Your task to perform on an android device: turn on translation in the chrome app Image 0: 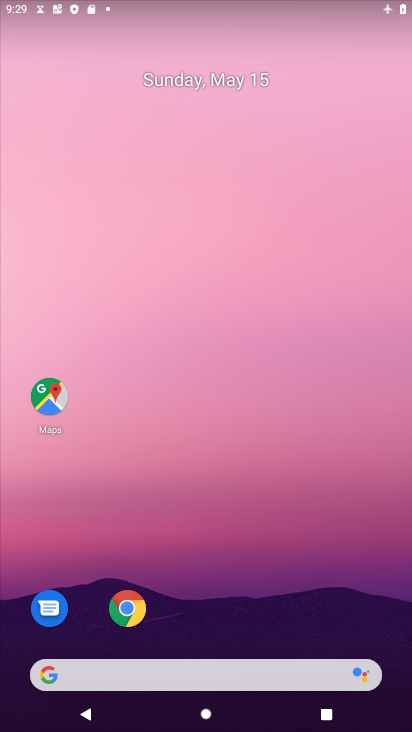
Step 0: drag from (367, 451) to (314, 134)
Your task to perform on an android device: turn on translation in the chrome app Image 1: 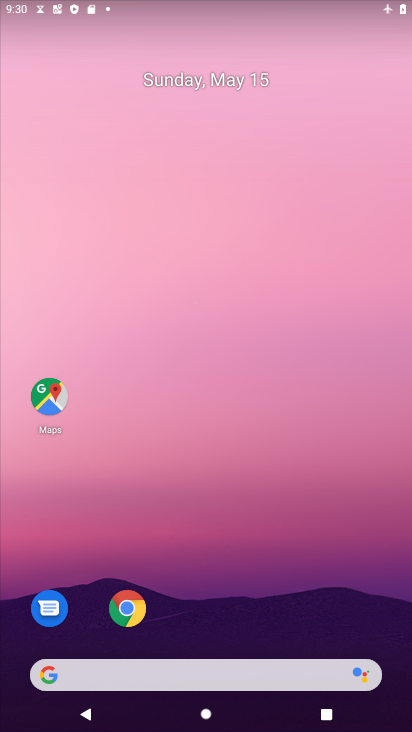
Step 1: drag from (292, 497) to (270, 6)
Your task to perform on an android device: turn on translation in the chrome app Image 2: 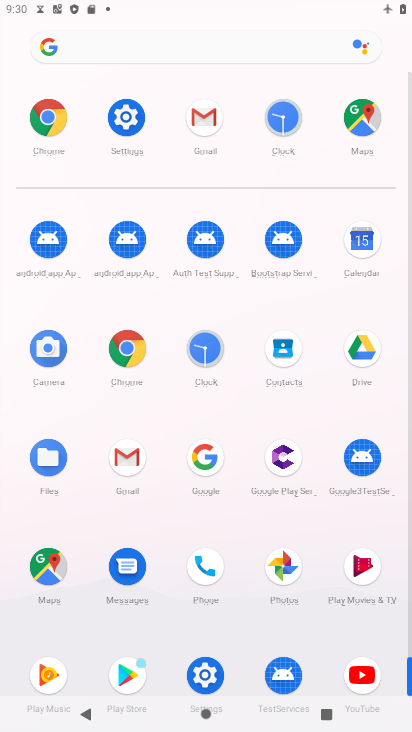
Step 2: click (130, 355)
Your task to perform on an android device: turn on translation in the chrome app Image 3: 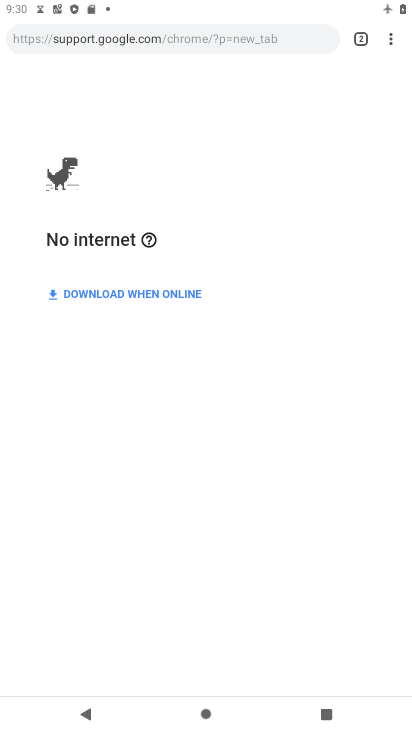
Step 3: task complete